Your task to perform on an android device: choose inbox layout in the gmail app Image 0: 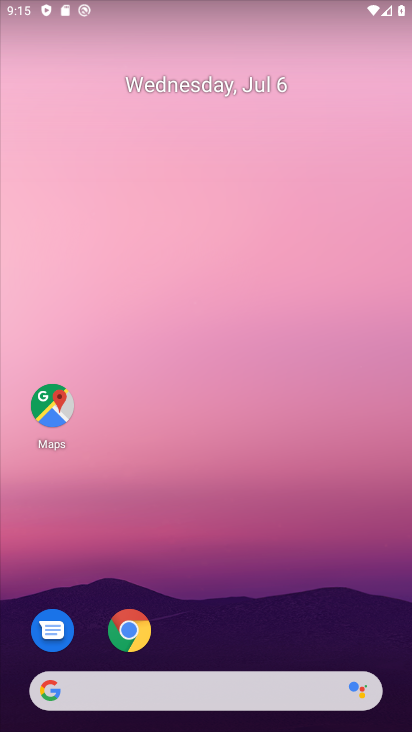
Step 0: drag from (152, 676) to (228, 148)
Your task to perform on an android device: choose inbox layout in the gmail app Image 1: 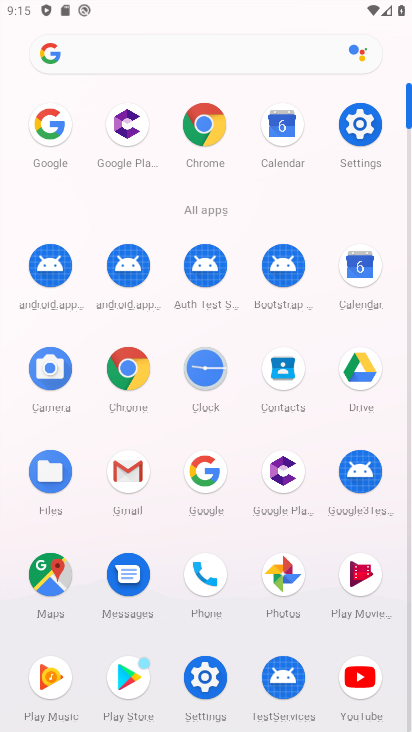
Step 1: click (133, 467)
Your task to perform on an android device: choose inbox layout in the gmail app Image 2: 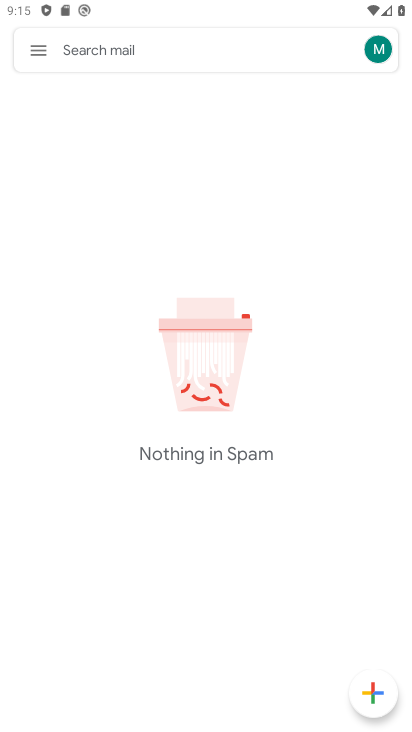
Step 2: click (43, 54)
Your task to perform on an android device: choose inbox layout in the gmail app Image 3: 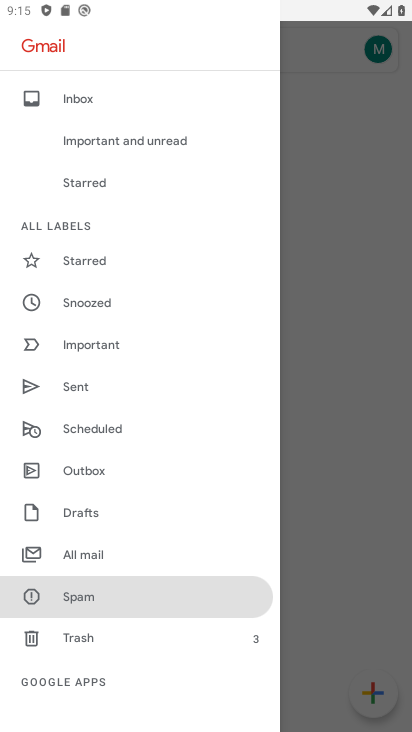
Step 3: drag from (124, 672) to (155, 222)
Your task to perform on an android device: choose inbox layout in the gmail app Image 4: 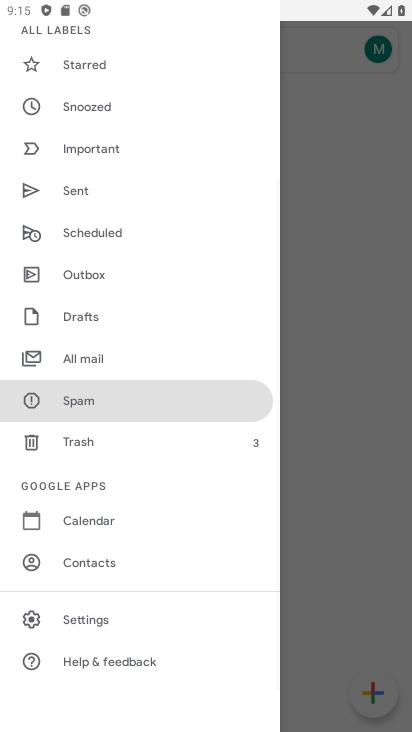
Step 4: click (96, 624)
Your task to perform on an android device: choose inbox layout in the gmail app Image 5: 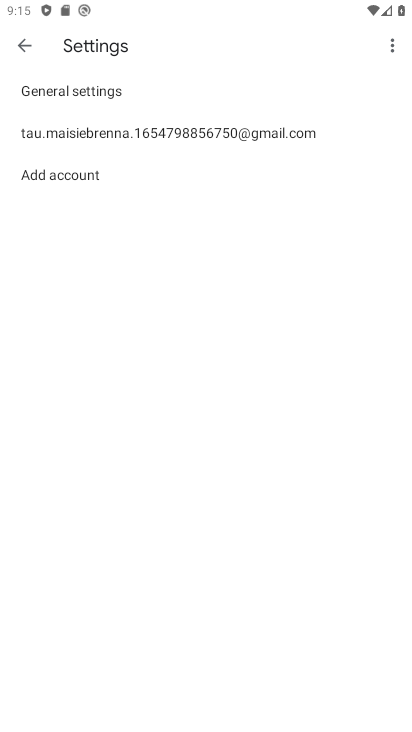
Step 5: click (115, 132)
Your task to perform on an android device: choose inbox layout in the gmail app Image 6: 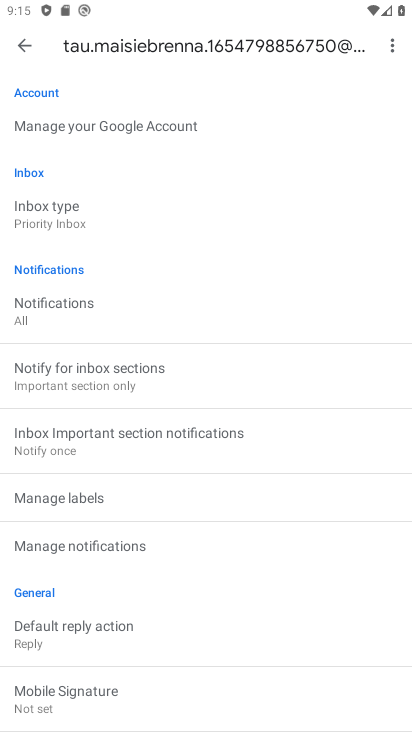
Step 6: click (48, 219)
Your task to perform on an android device: choose inbox layout in the gmail app Image 7: 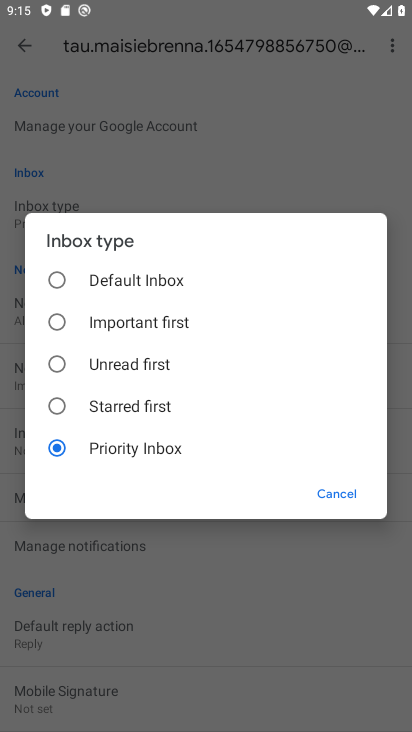
Step 7: click (105, 324)
Your task to perform on an android device: choose inbox layout in the gmail app Image 8: 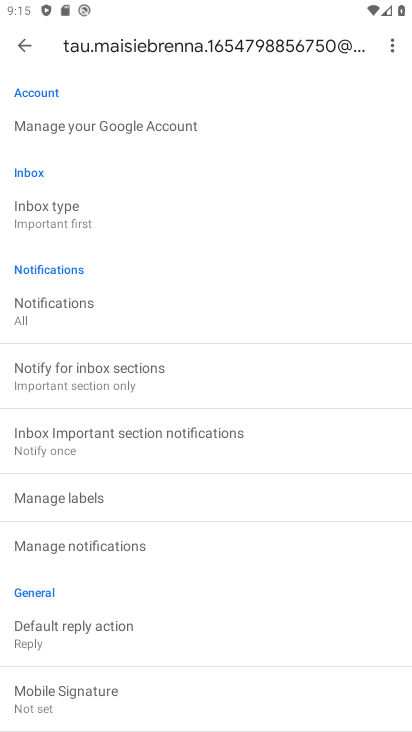
Step 8: task complete